Your task to perform on an android device: Search for asus rog on walmart, select the first entry, add it to the cart, then select checkout. Image 0: 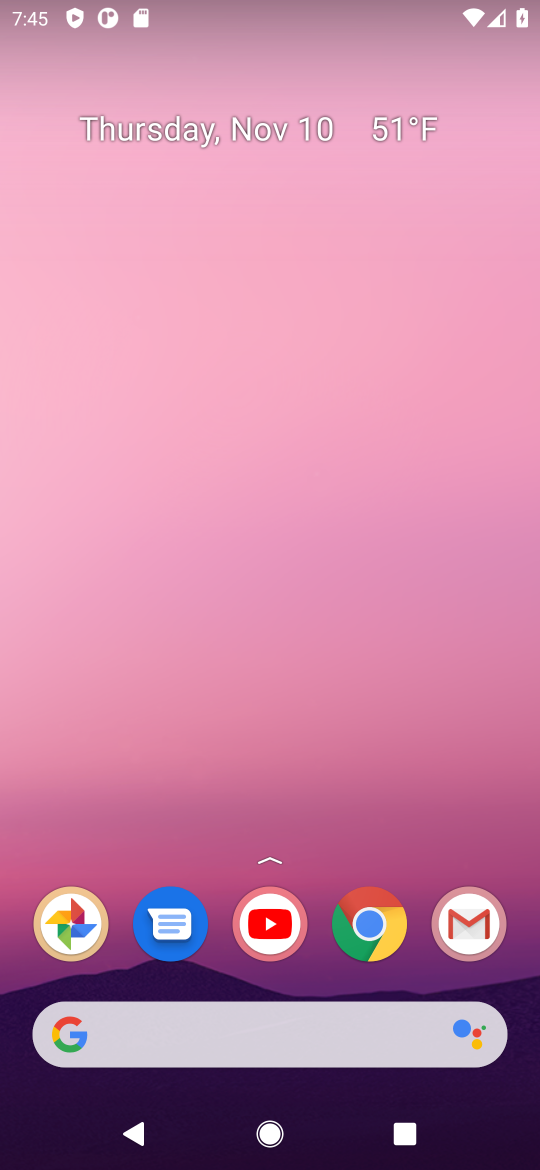
Step 0: click (370, 924)
Your task to perform on an android device: Search for asus rog on walmart, select the first entry, add it to the cart, then select checkout. Image 1: 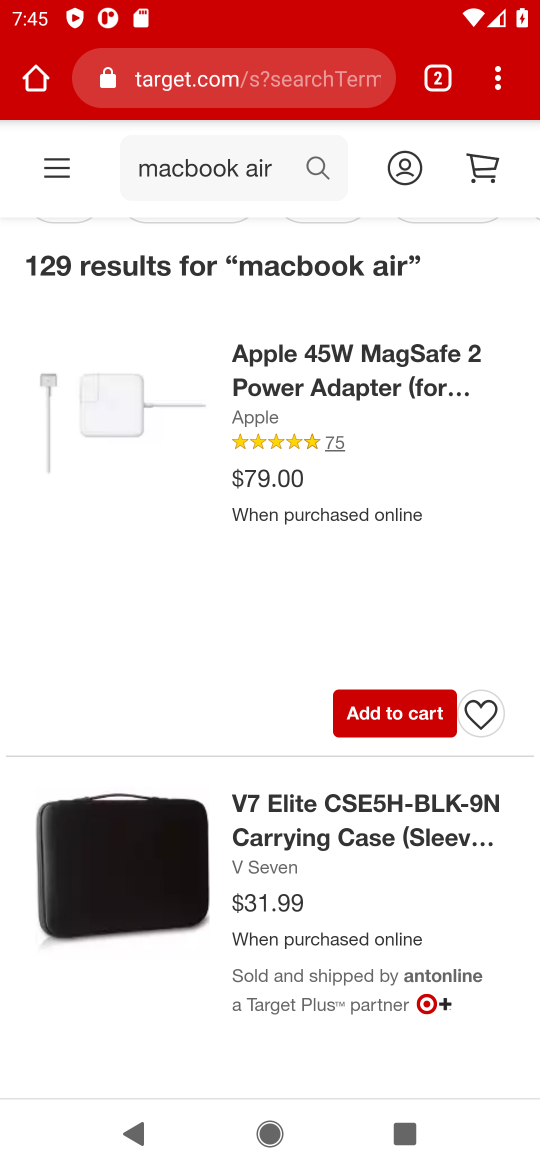
Step 1: click (204, 72)
Your task to perform on an android device: Search for asus rog on walmart, select the first entry, add it to the cart, then select checkout. Image 2: 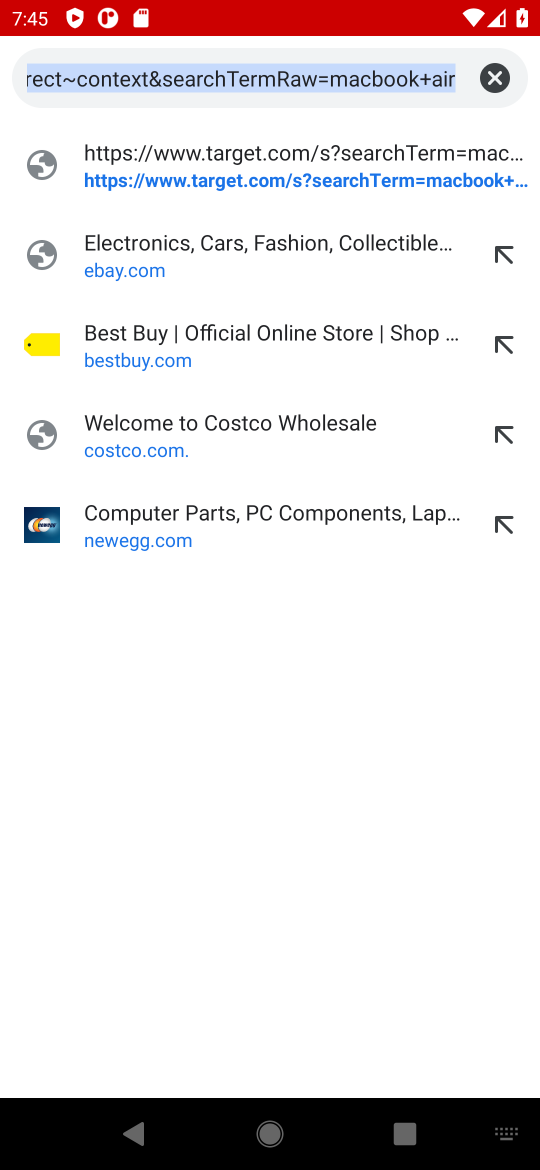
Step 2: type "walmart.com"
Your task to perform on an android device: Search for asus rog on walmart, select the first entry, add it to the cart, then select checkout. Image 3: 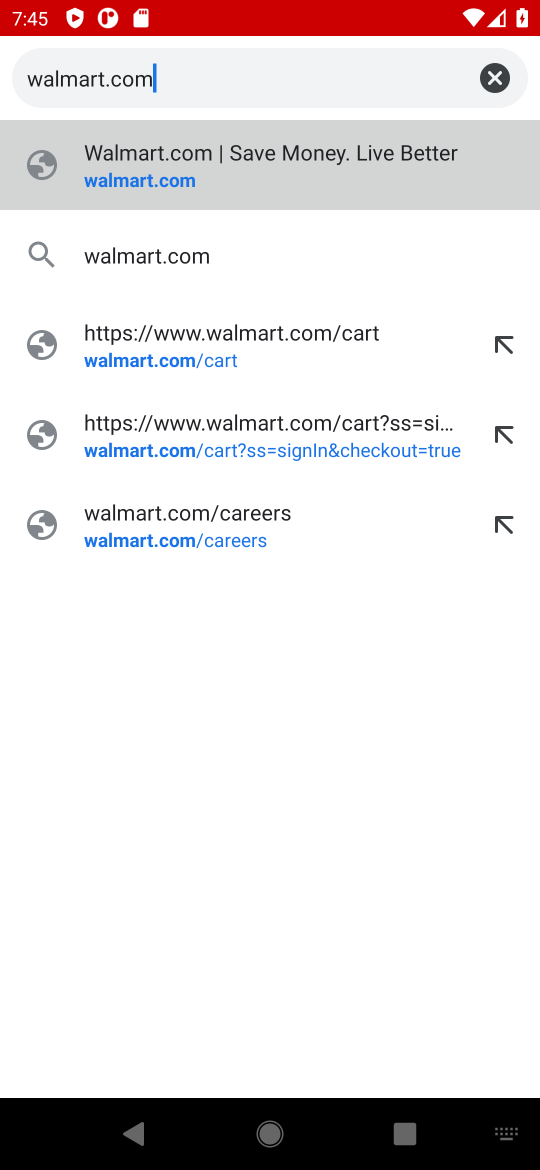
Step 3: click (130, 187)
Your task to perform on an android device: Search for asus rog on walmart, select the first entry, add it to the cart, then select checkout. Image 4: 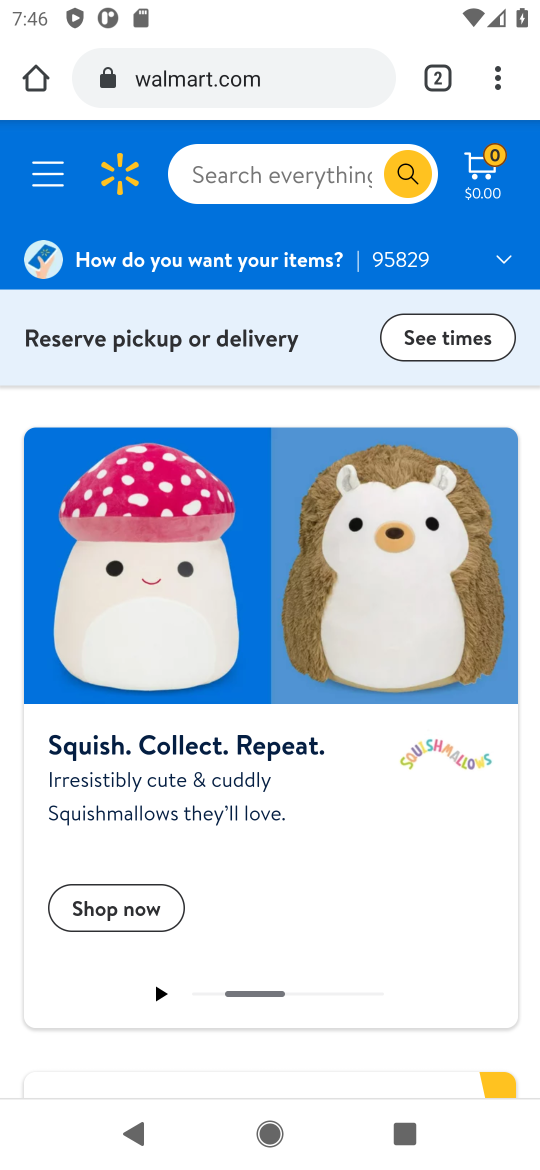
Step 4: click (234, 166)
Your task to perform on an android device: Search for asus rog on walmart, select the first entry, add it to the cart, then select checkout. Image 5: 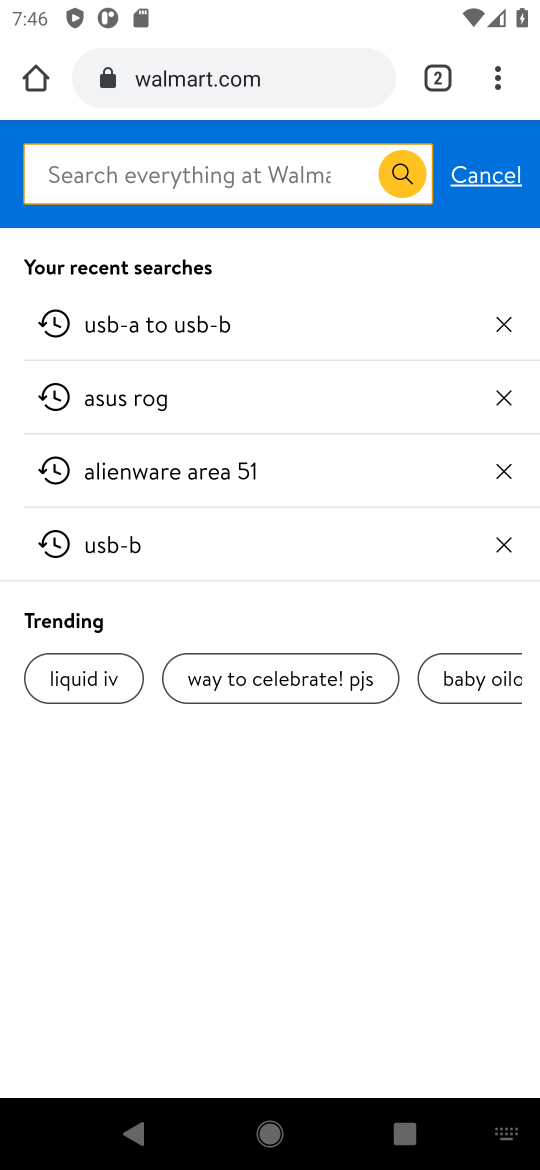
Step 5: type " asus rog"
Your task to perform on an android device: Search for asus rog on walmart, select the first entry, add it to the cart, then select checkout. Image 6: 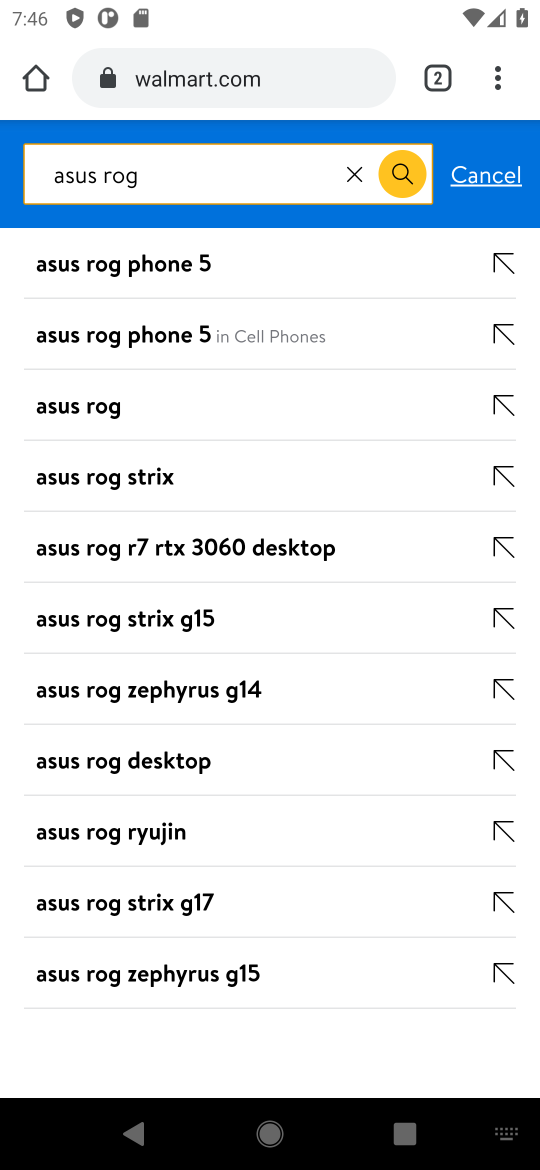
Step 6: click (105, 418)
Your task to perform on an android device: Search for asus rog on walmart, select the first entry, add it to the cart, then select checkout. Image 7: 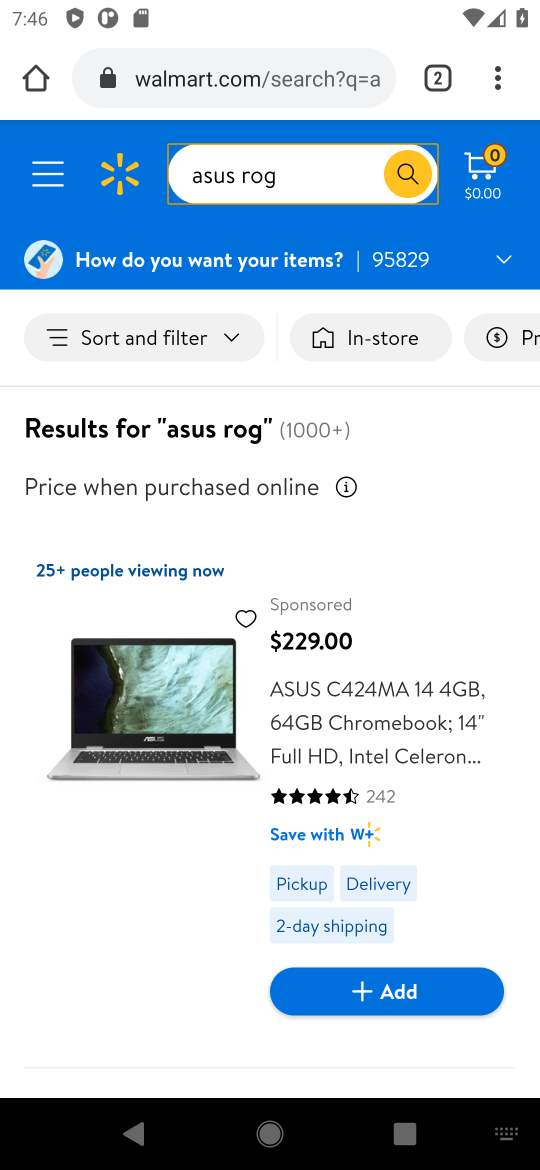
Step 7: task complete